Your task to perform on an android device: turn pop-ups off in chrome Image 0: 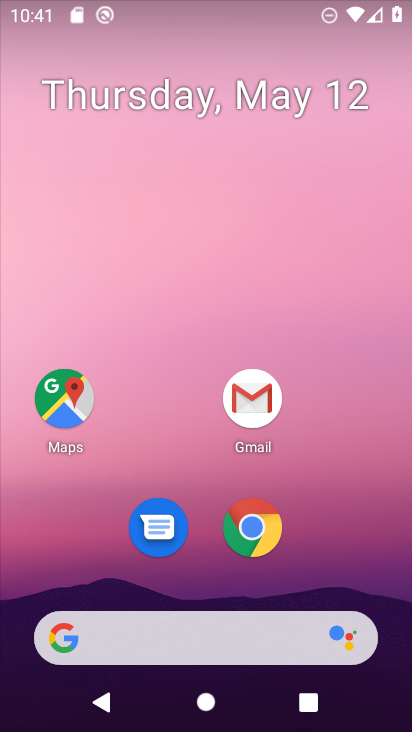
Step 0: click (260, 529)
Your task to perform on an android device: turn pop-ups off in chrome Image 1: 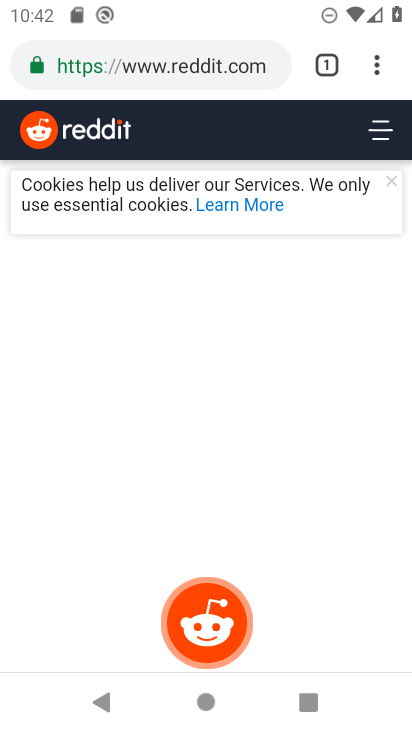
Step 1: click (382, 64)
Your task to perform on an android device: turn pop-ups off in chrome Image 2: 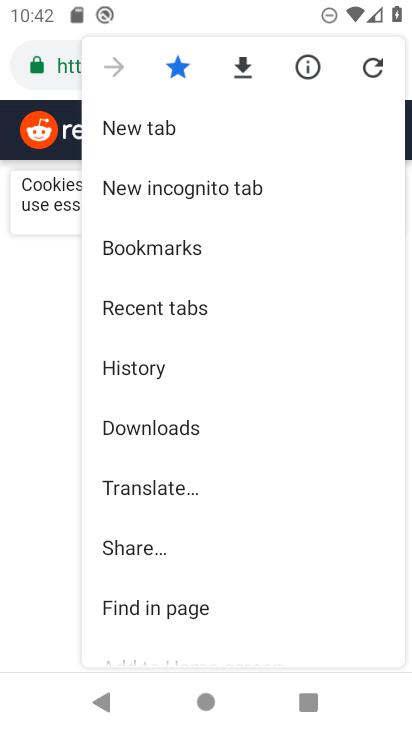
Step 2: drag from (234, 583) to (221, 380)
Your task to perform on an android device: turn pop-ups off in chrome Image 3: 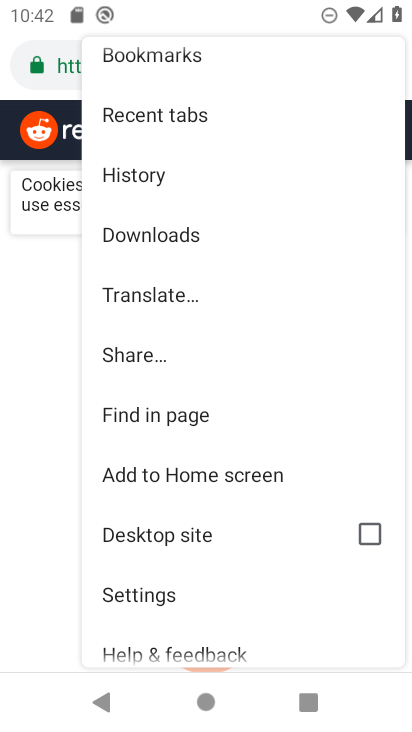
Step 3: click (163, 602)
Your task to perform on an android device: turn pop-ups off in chrome Image 4: 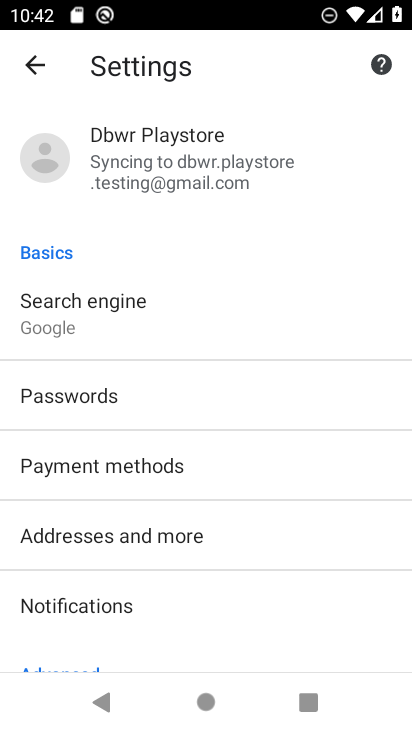
Step 4: drag from (185, 634) to (131, 322)
Your task to perform on an android device: turn pop-ups off in chrome Image 5: 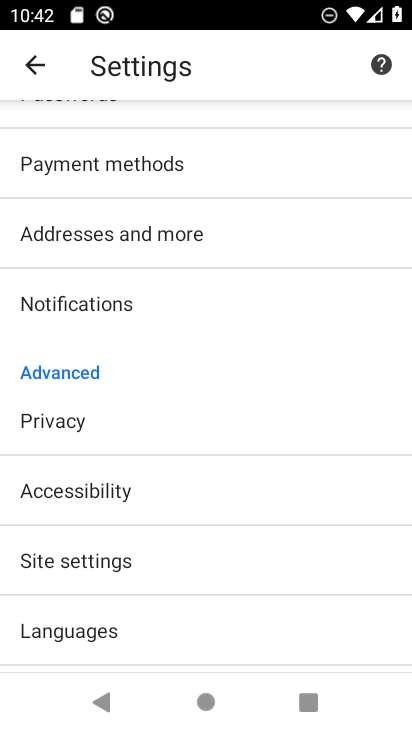
Step 5: click (164, 544)
Your task to perform on an android device: turn pop-ups off in chrome Image 6: 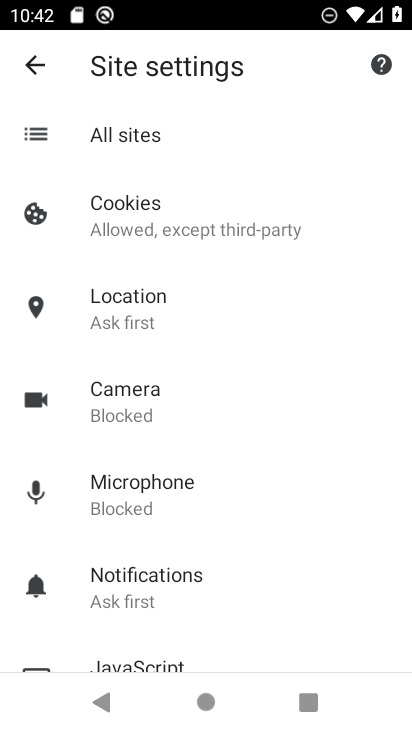
Step 6: drag from (194, 589) to (164, 370)
Your task to perform on an android device: turn pop-ups off in chrome Image 7: 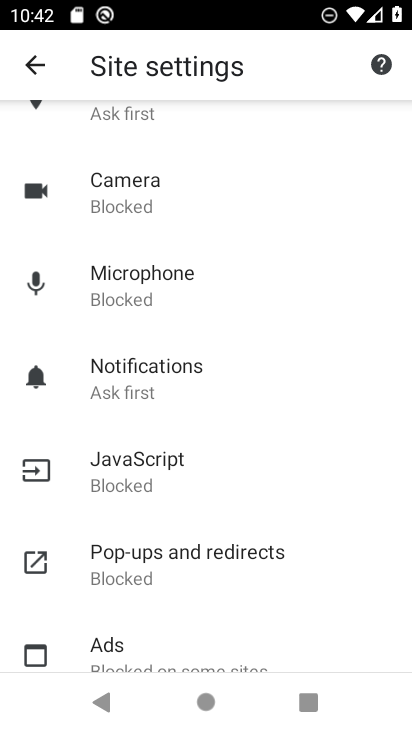
Step 7: click (195, 551)
Your task to perform on an android device: turn pop-ups off in chrome Image 8: 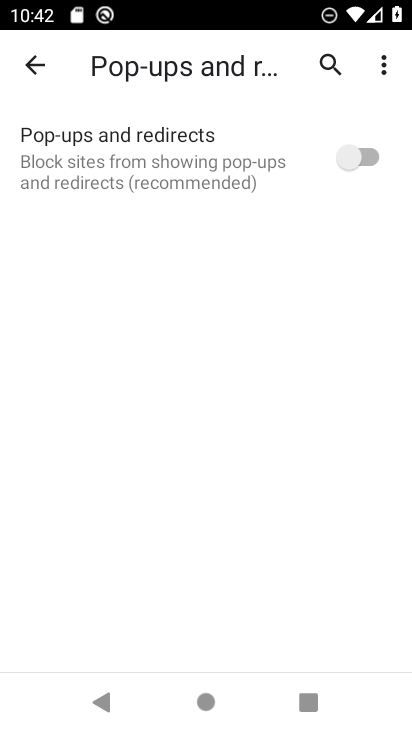
Step 8: click (277, 178)
Your task to perform on an android device: turn pop-ups off in chrome Image 9: 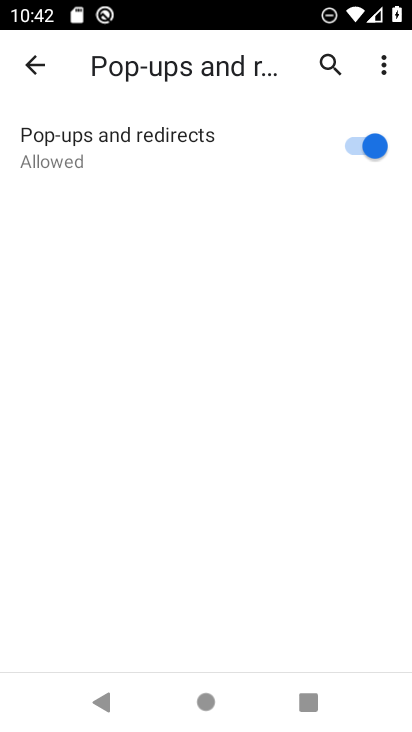
Step 9: task complete